Your task to perform on an android device: Go to Reddit.com Image 0: 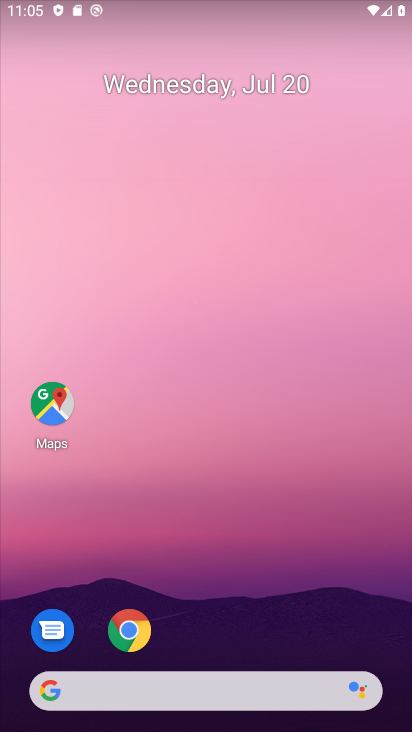
Step 0: drag from (211, 652) to (248, 6)
Your task to perform on an android device: Go to Reddit.com Image 1: 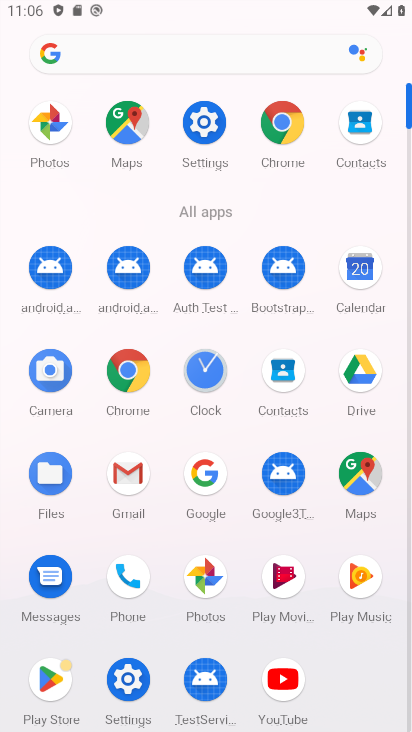
Step 1: click (284, 118)
Your task to perform on an android device: Go to Reddit.com Image 2: 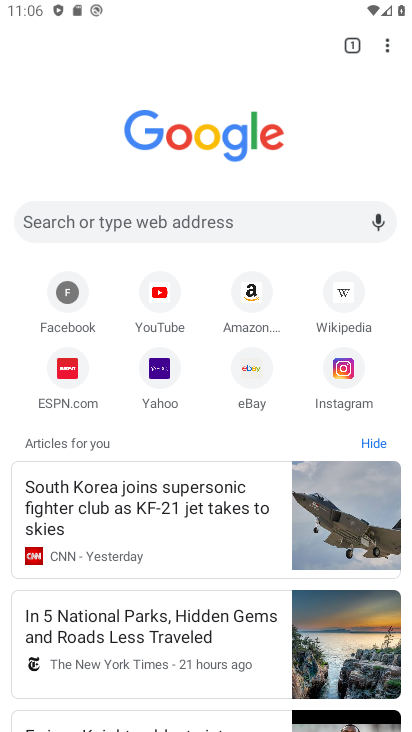
Step 2: click (116, 212)
Your task to perform on an android device: Go to Reddit.com Image 3: 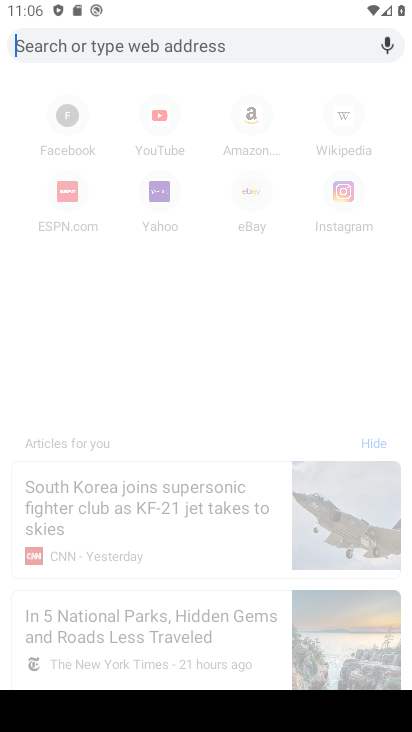
Step 3: type "reddit.com"
Your task to perform on an android device: Go to Reddit.com Image 4: 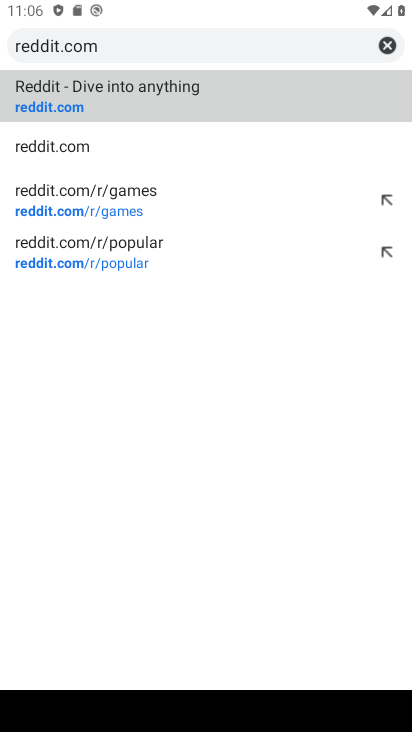
Step 4: click (79, 99)
Your task to perform on an android device: Go to Reddit.com Image 5: 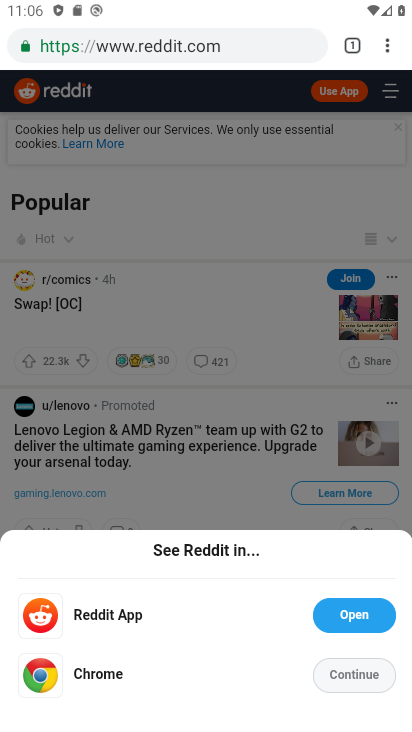
Step 5: click (360, 666)
Your task to perform on an android device: Go to Reddit.com Image 6: 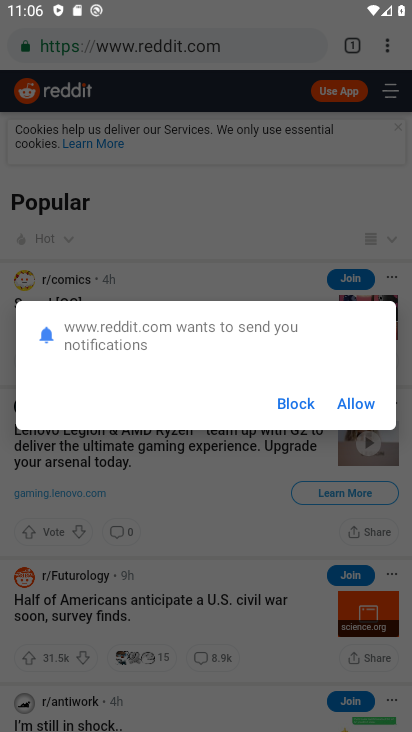
Step 6: click (357, 409)
Your task to perform on an android device: Go to Reddit.com Image 7: 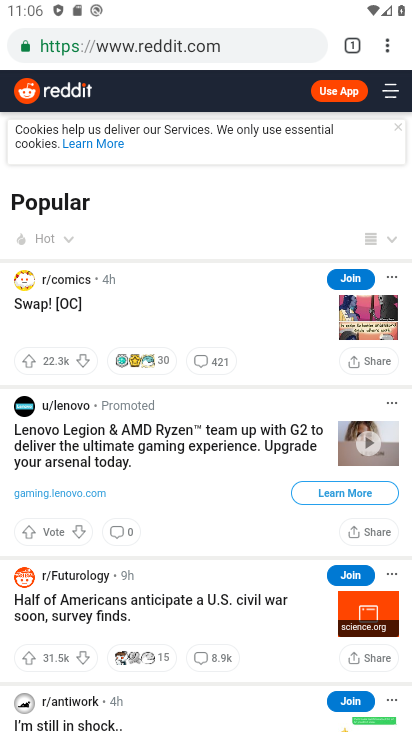
Step 7: task complete